Your task to perform on an android device: Search for seafood restaurants on Google Maps Image 0: 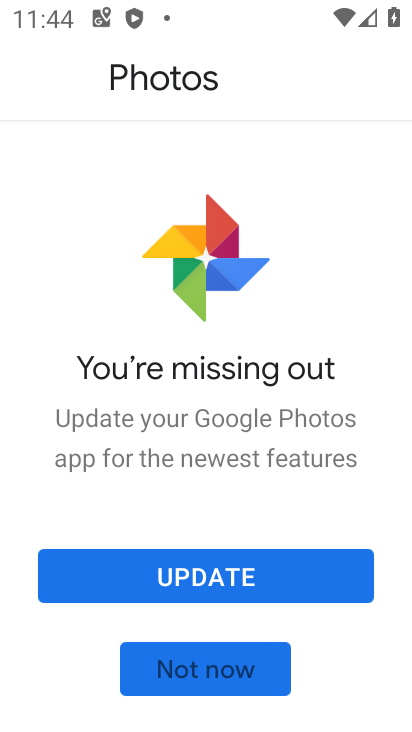
Step 0: press home button
Your task to perform on an android device: Search for seafood restaurants on Google Maps Image 1: 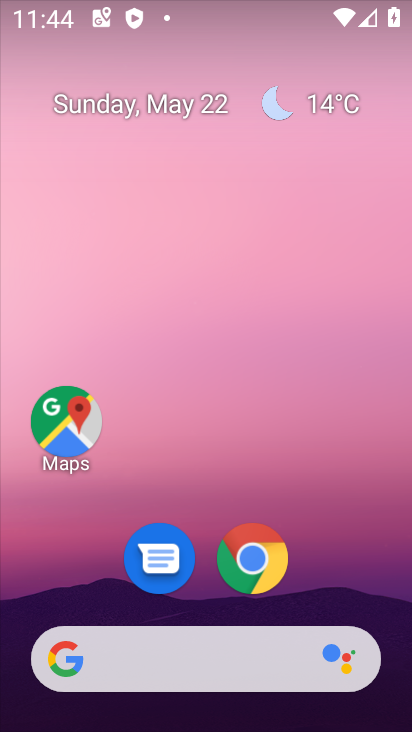
Step 1: click (71, 428)
Your task to perform on an android device: Search for seafood restaurants on Google Maps Image 2: 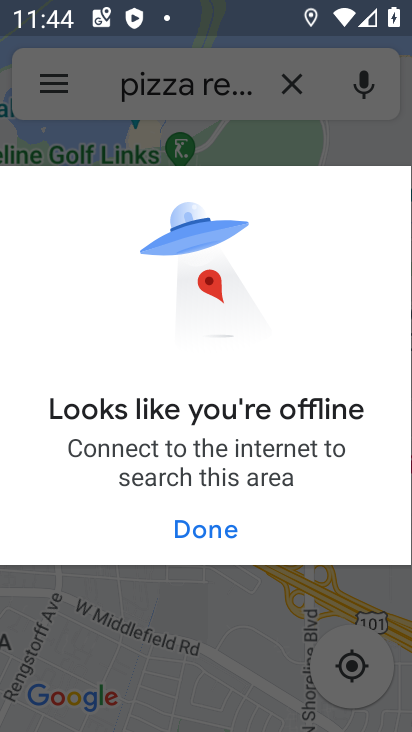
Step 2: click (201, 527)
Your task to perform on an android device: Search for seafood restaurants on Google Maps Image 3: 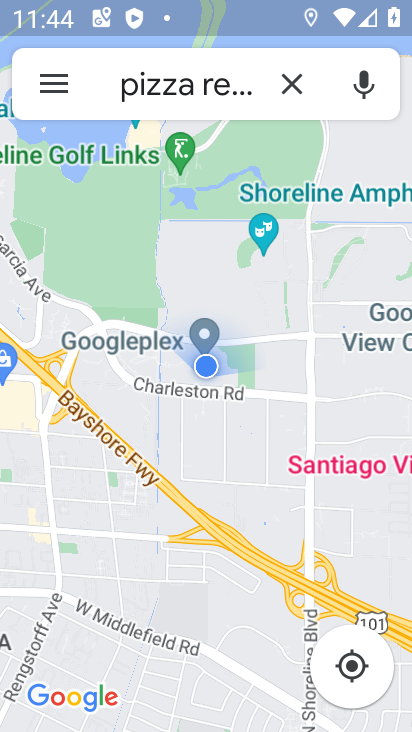
Step 3: click (300, 88)
Your task to perform on an android device: Search for seafood restaurants on Google Maps Image 4: 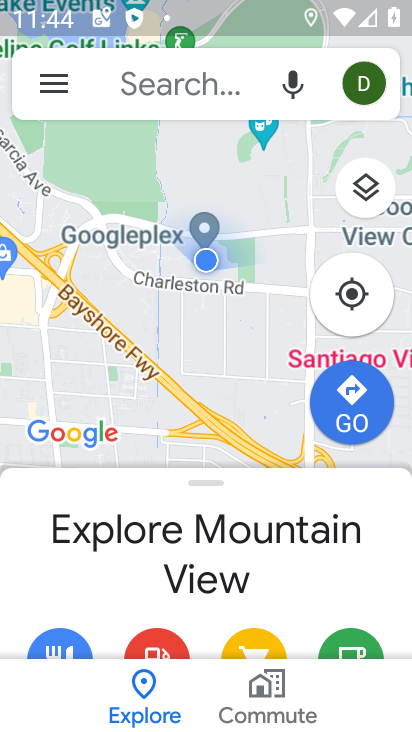
Step 4: click (130, 85)
Your task to perform on an android device: Search for seafood restaurants on Google Maps Image 5: 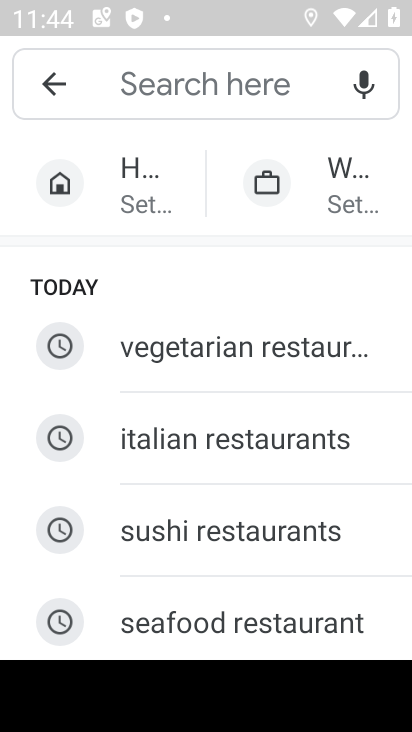
Step 5: type "seafood restaurant"
Your task to perform on an android device: Search for seafood restaurants on Google Maps Image 6: 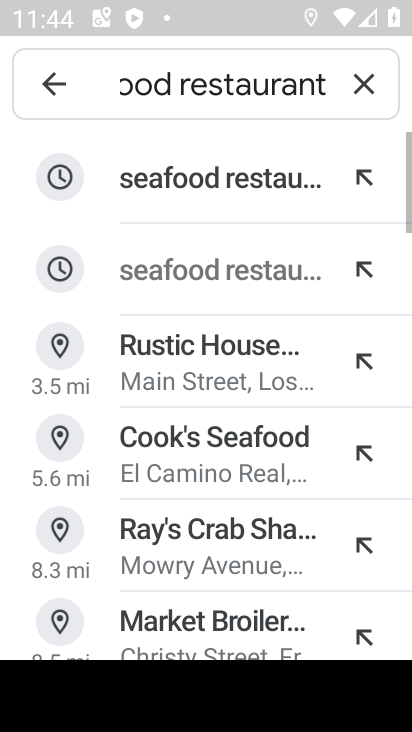
Step 6: click (196, 179)
Your task to perform on an android device: Search for seafood restaurants on Google Maps Image 7: 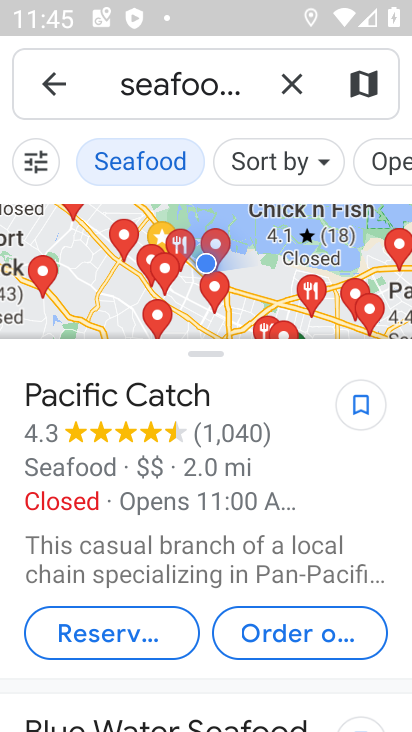
Step 7: task complete